Your task to perform on an android device: Go to Yahoo.com Image 0: 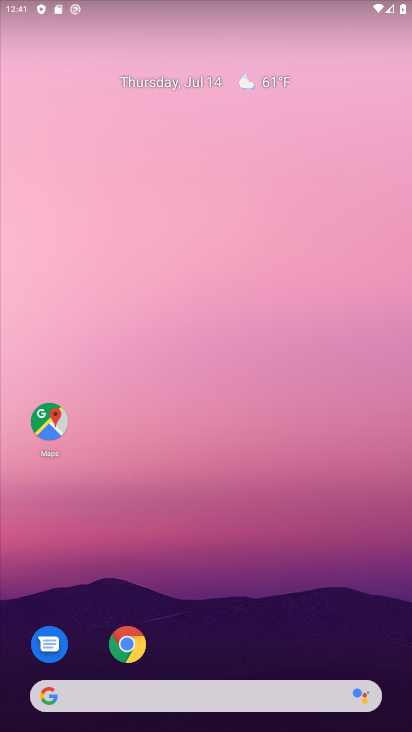
Step 0: drag from (209, 663) to (134, 179)
Your task to perform on an android device: Go to Yahoo.com Image 1: 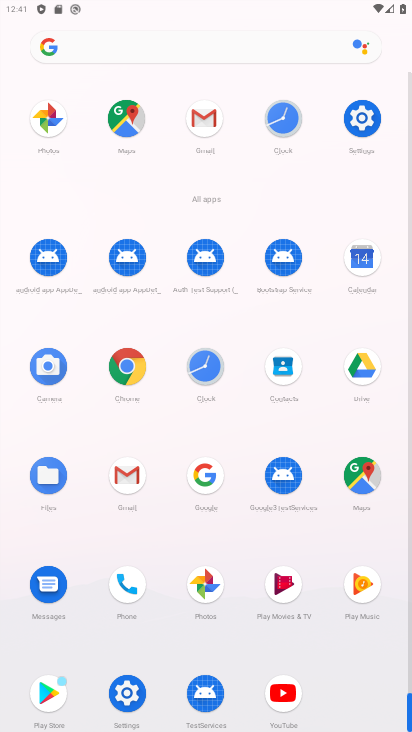
Step 1: drag from (212, 580) to (126, 131)
Your task to perform on an android device: Go to Yahoo.com Image 2: 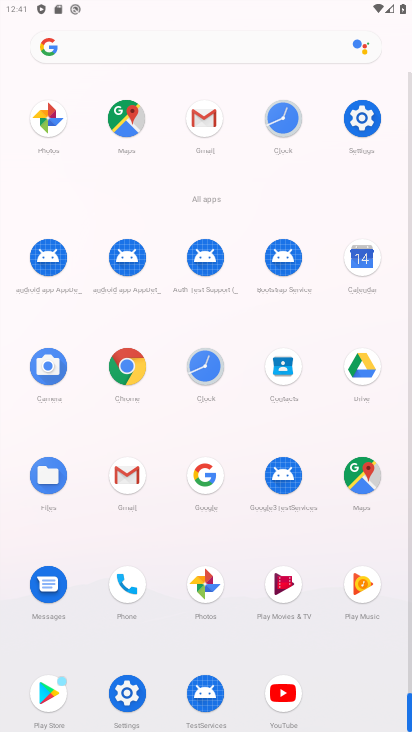
Step 2: click (128, 366)
Your task to perform on an android device: Go to Yahoo.com Image 3: 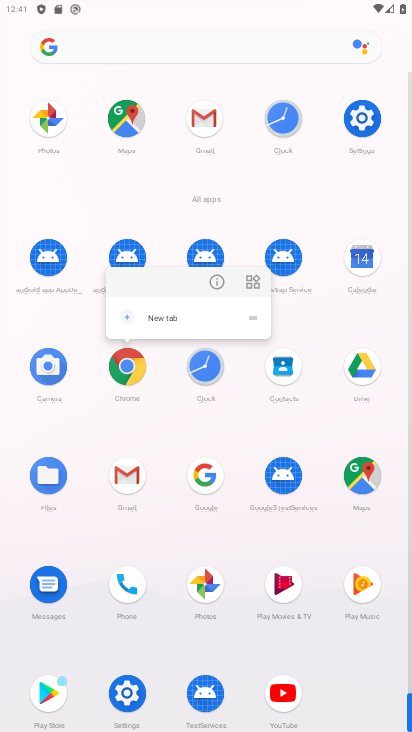
Step 3: click (116, 360)
Your task to perform on an android device: Go to Yahoo.com Image 4: 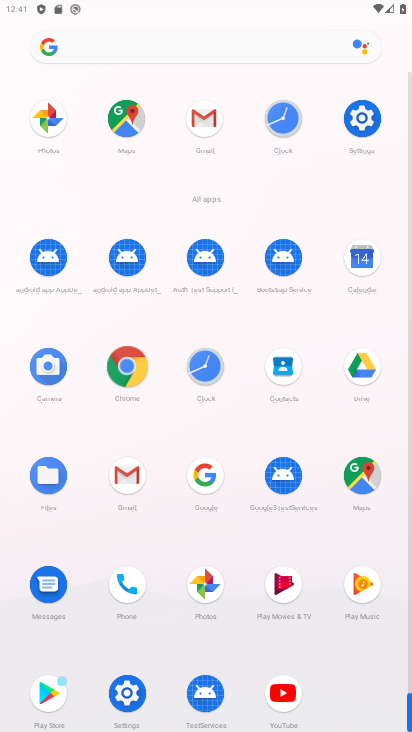
Step 4: click (118, 362)
Your task to perform on an android device: Go to Yahoo.com Image 5: 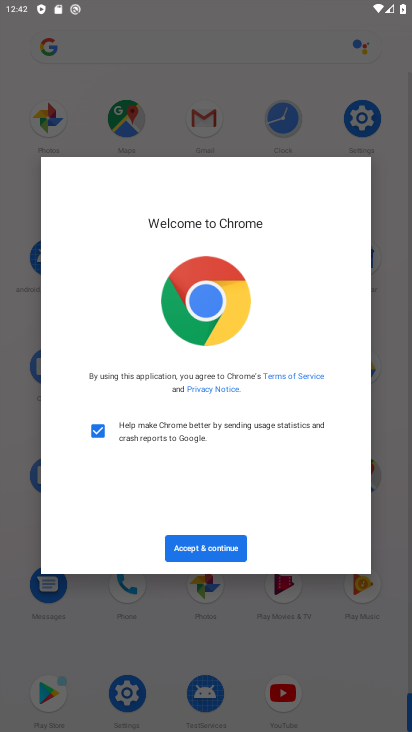
Step 5: click (236, 551)
Your task to perform on an android device: Go to Yahoo.com Image 6: 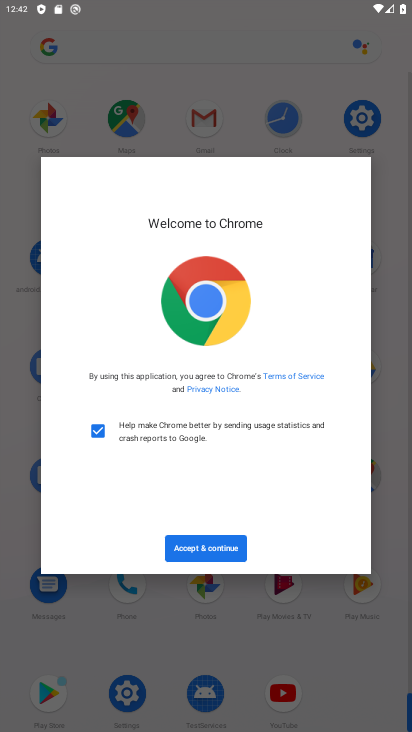
Step 6: click (232, 552)
Your task to perform on an android device: Go to Yahoo.com Image 7: 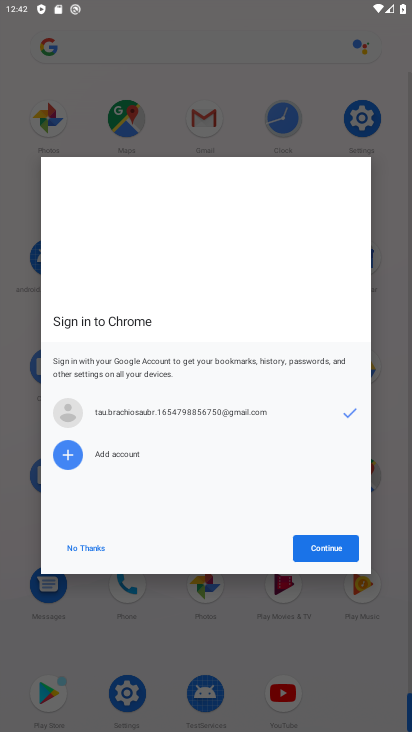
Step 7: click (228, 555)
Your task to perform on an android device: Go to Yahoo.com Image 8: 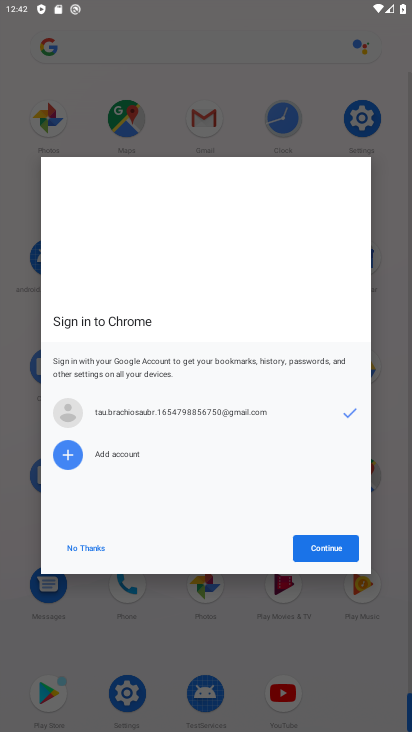
Step 8: click (227, 560)
Your task to perform on an android device: Go to Yahoo.com Image 9: 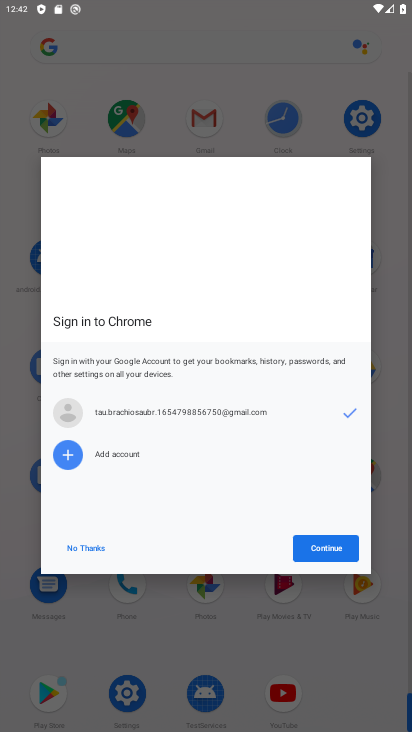
Step 9: drag from (210, 551) to (320, 547)
Your task to perform on an android device: Go to Yahoo.com Image 10: 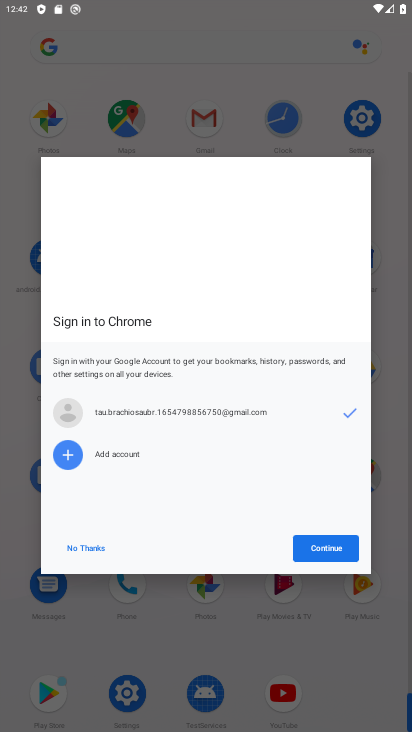
Step 10: click (332, 548)
Your task to perform on an android device: Go to Yahoo.com Image 11: 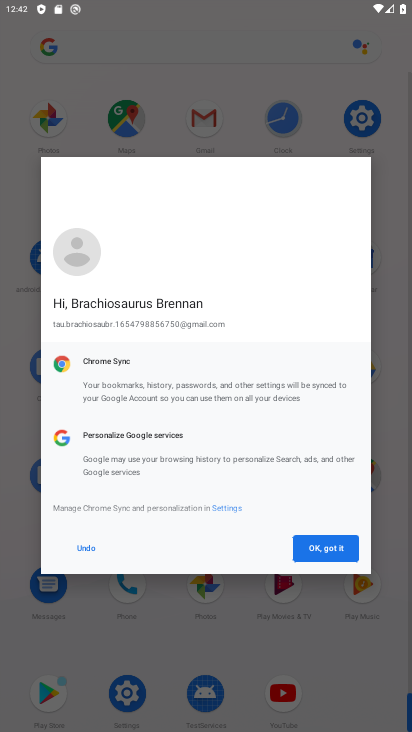
Step 11: click (335, 552)
Your task to perform on an android device: Go to Yahoo.com Image 12: 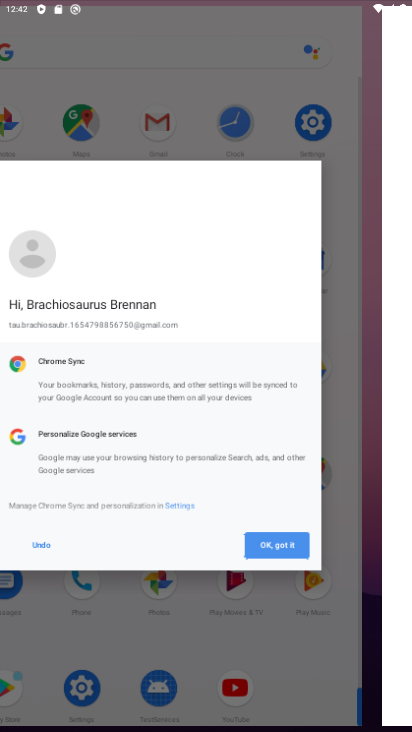
Step 12: click (333, 551)
Your task to perform on an android device: Go to Yahoo.com Image 13: 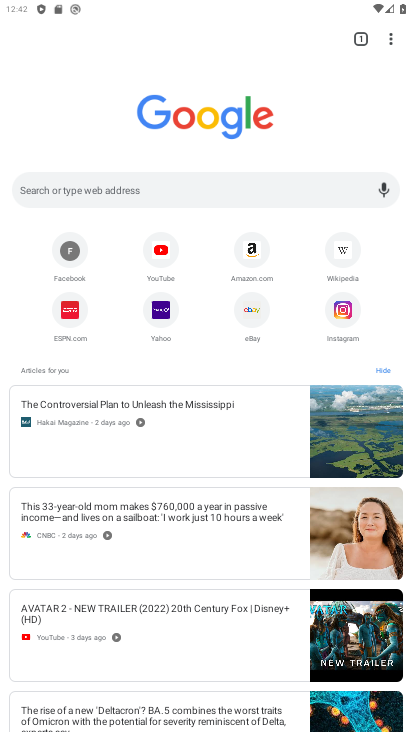
Step 13: click (166, 314)
Your task to perform on an android device: Go to Yahoo.com Image 14: 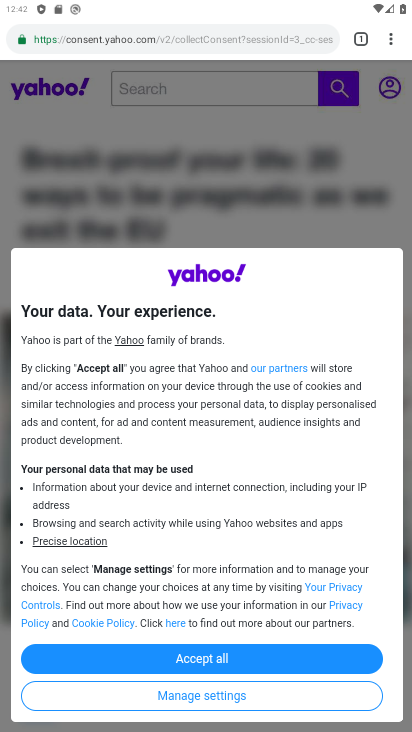
Step 14: click (167, 314)
Your task to perform on an android device: Go to Yahoo.com Image 15: 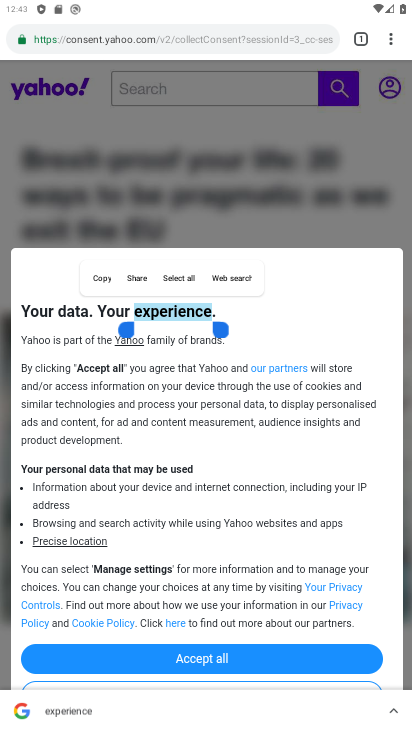
Step 15: click (181, 331)
Your task to perform on an android device: Go to Yahoo.com Image 16: 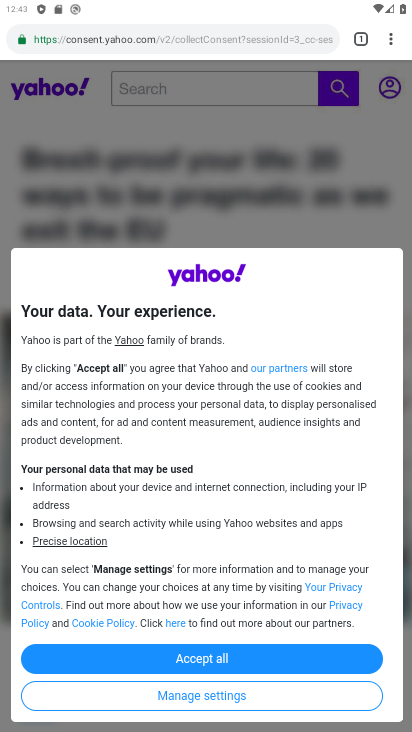
Step 16: click (166, 322)
Your task to perform on an android device: Go to Yahoo.com Image 17: 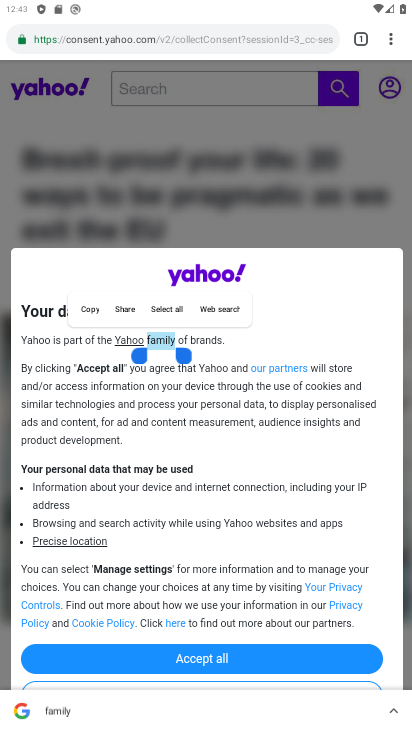
Step 17: task complete